Your task to perform on an android device: Do I have any events today? Image 0: 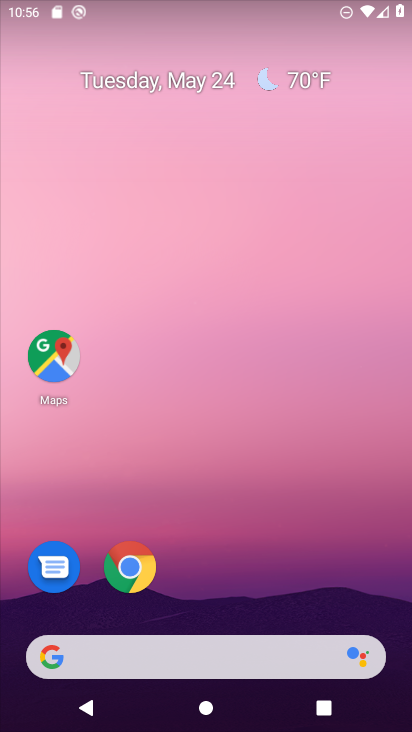
Step 0: drag from (398, 526) to (363, 182)
Your task to perform on an android device: Do I have any events today? Image 1: 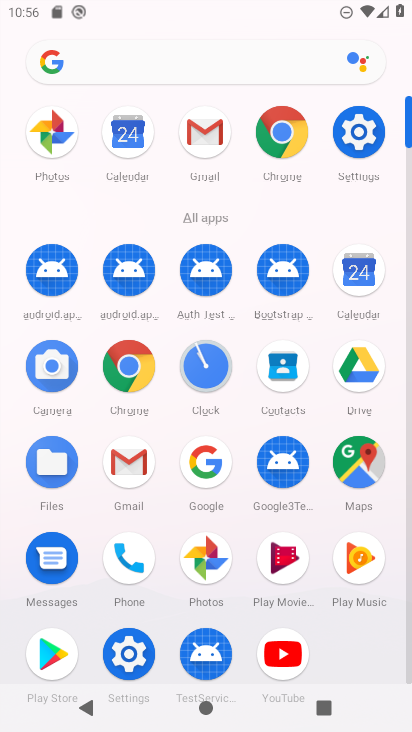
Step 1: click (363, 268)
Your task to perform on an android device: Do I have any events today? Image 2: 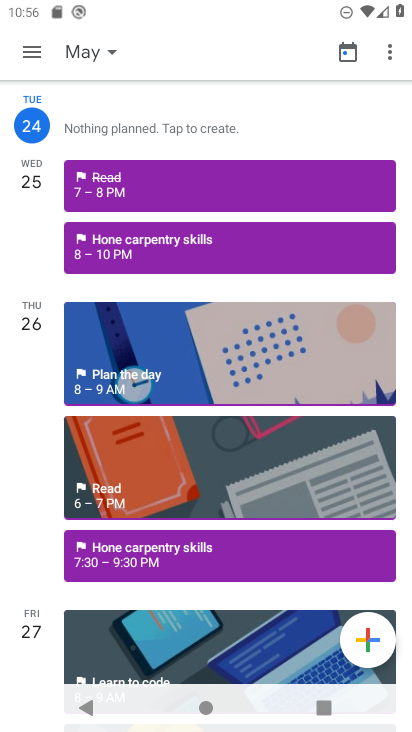
Step 2: click (29, 55)
Your task to perform on an android device: Do I have any events today? Image 3: 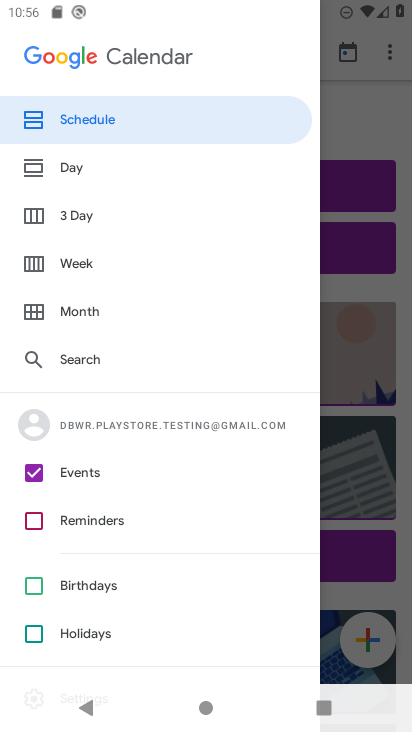
Step 3: click (62, 164)
Your task to perform on an android device: Do I have any events today? Image 4: 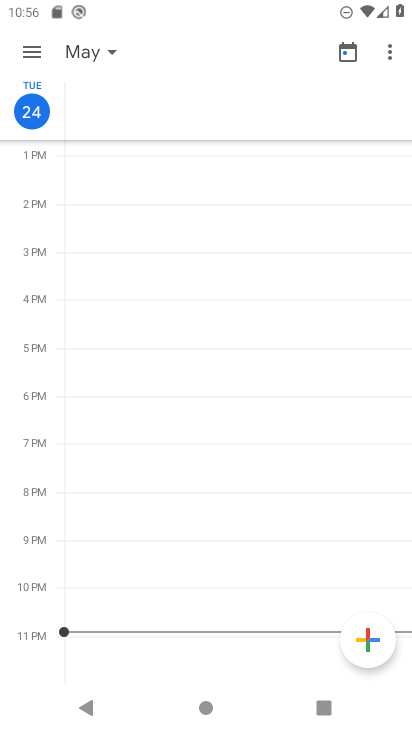
Step 4: task complete